Your task to perform on an android device: open the mobile data screen to see how much data has been used Image 0: 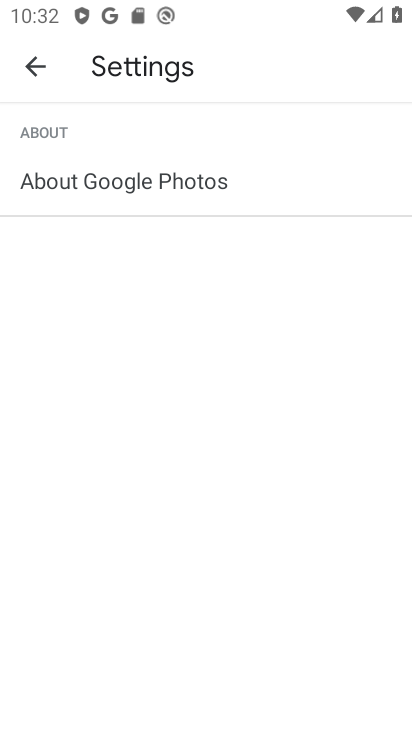
Step 0: click (29, 63)
Your task to perform on an android device: open the mobile data screen to see how much data has been used Image 1: 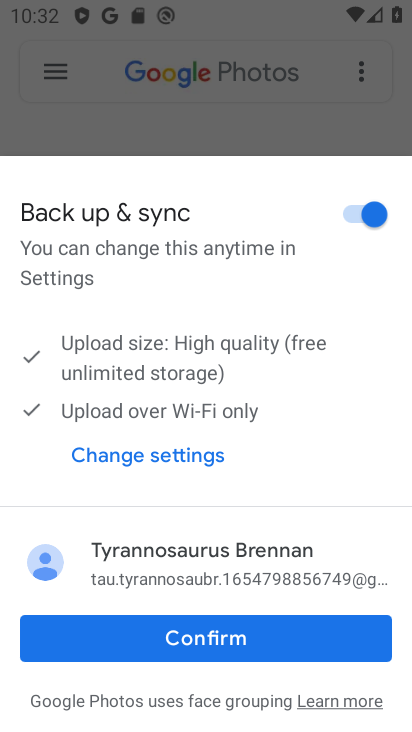
Step 1: press home button
Your task to perform on an android device: open the mobile data screen to see how much data has been used Image 2: 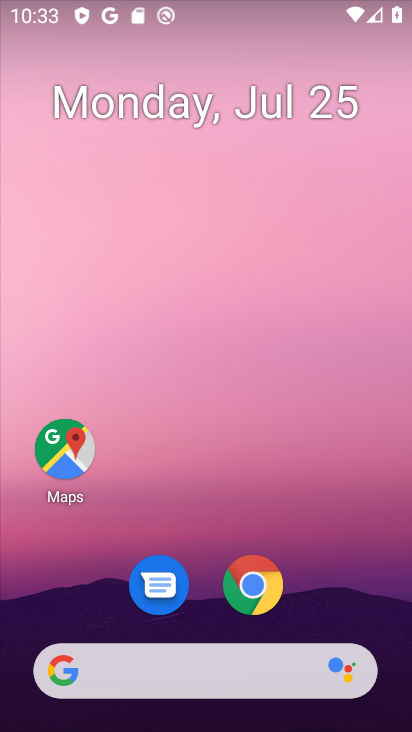
Step 2: drag from (316, 571) to (287, 0)
Your task to perform on an android device: open the mobile data screen to see how much data has been used Image 3: 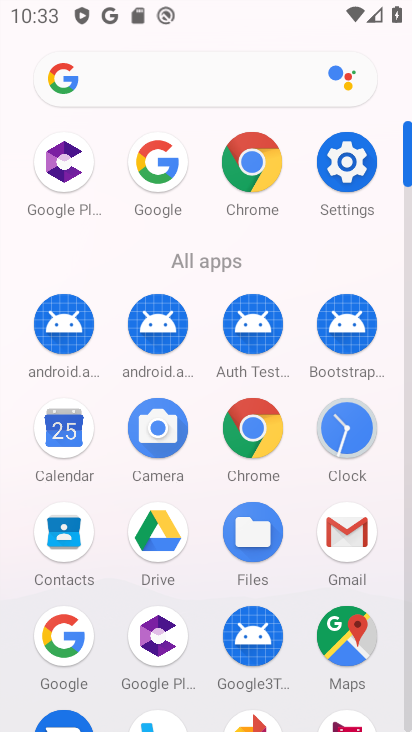
Step 3: click (348, 155)
Your task to perform on an android device: open the mobile data screen to see how much data has been used Image 4: 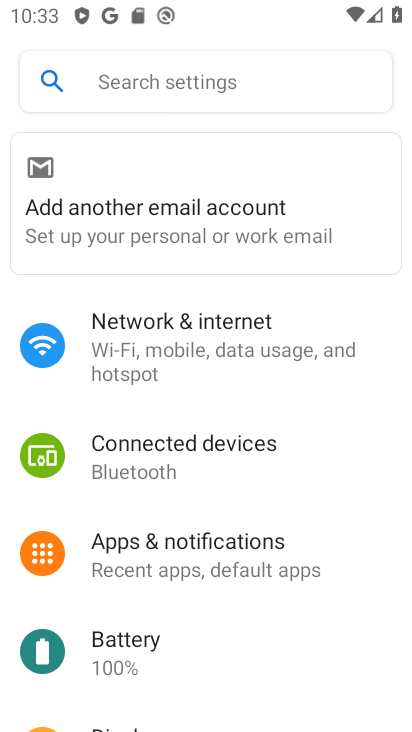
Step 4: click (200, 336)
Your task to perform on an android device: open the mobile data screen to see how much data has been used Image 5: 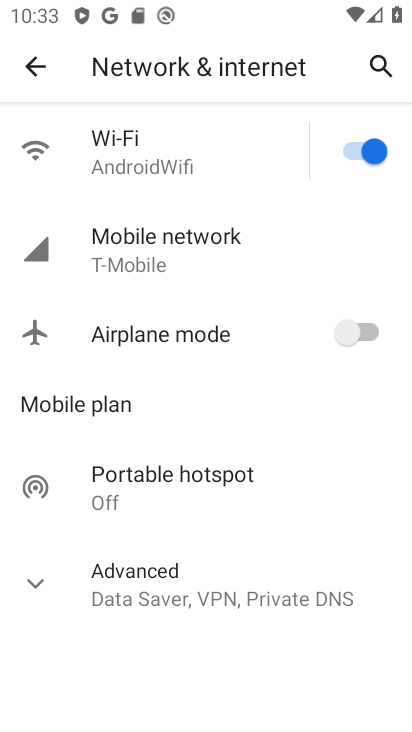
Step 5: click (206, 234)
Your task to perform on an android device: open the mobile data screen to see how much data has been used Image 6: 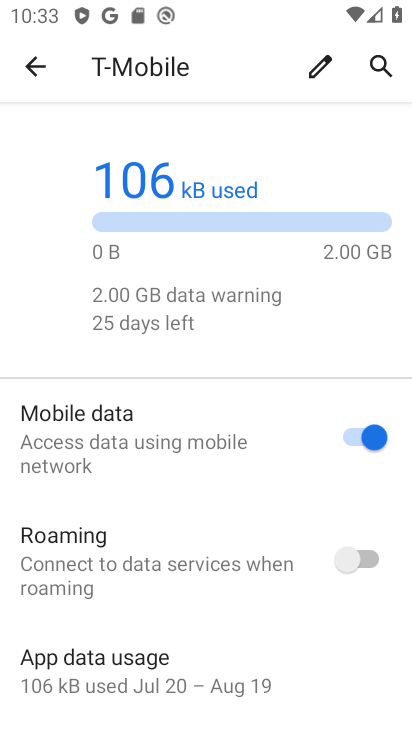
Step 6: task complete